Your task to perform on an android device: open a new tab in the chrome app Image 0: 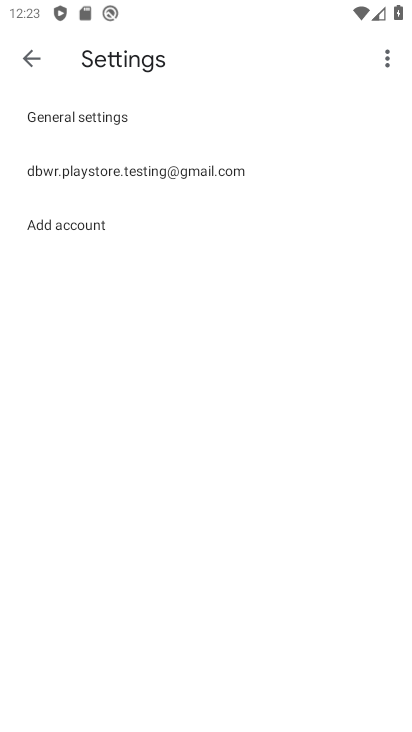
Step 0: drag from (280, 619) to (209, 157)
Your task to perform on an android device: open a new tab in the chrome app Image 1: 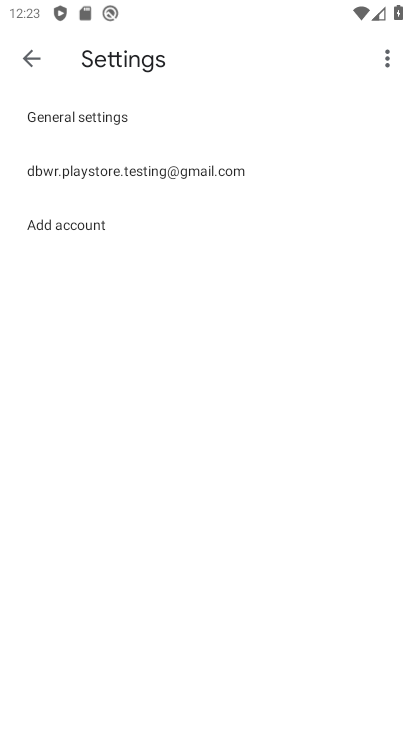
Step 1: press home button
Your task to perform on an android device: open a new tab in the chrome app Image 2: 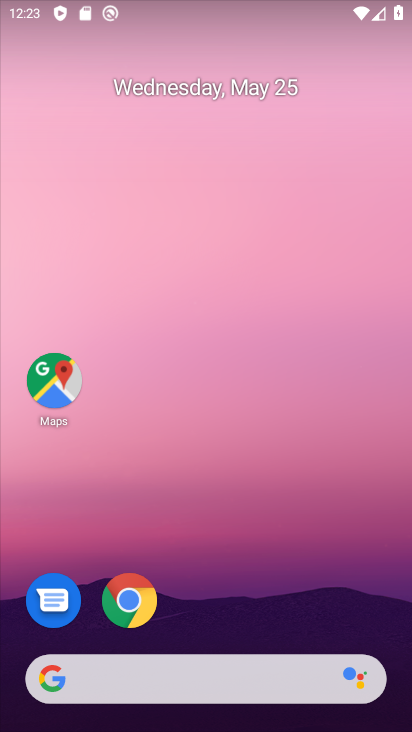
Step 2: click (151, 603)
Your task to perform on an android device: open a new tab in the chrome app Image 3: 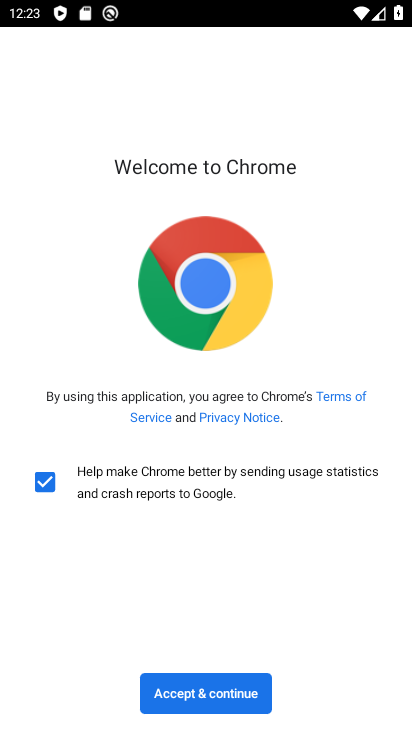
Step 3: click (179, 691)
Your task to perform on an android device: open a new tab in the chrome app Image 4: 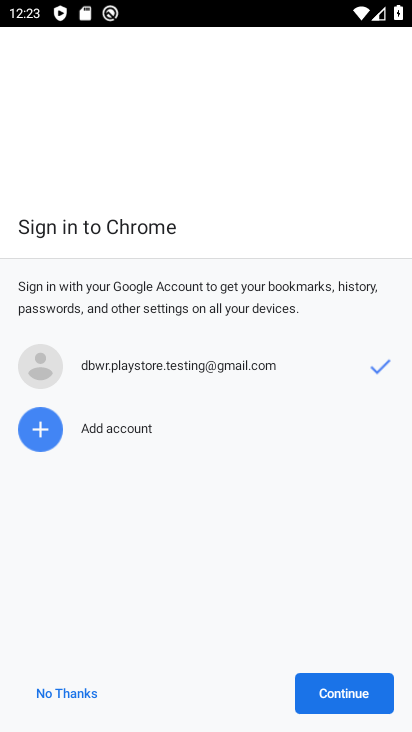
Step 4: click (346, 683)
Your task to perform on an android device: open a new tab in the chrome app Image 5: 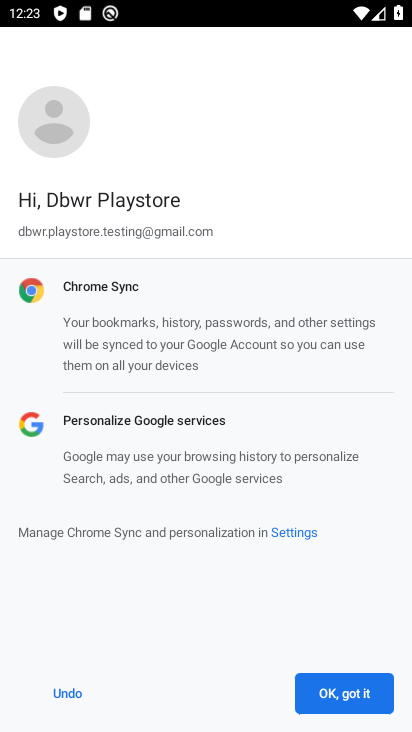
Step 5: click (346, 683)
Your task to perform on an android device: open a new tab in the chrome app Image 6: 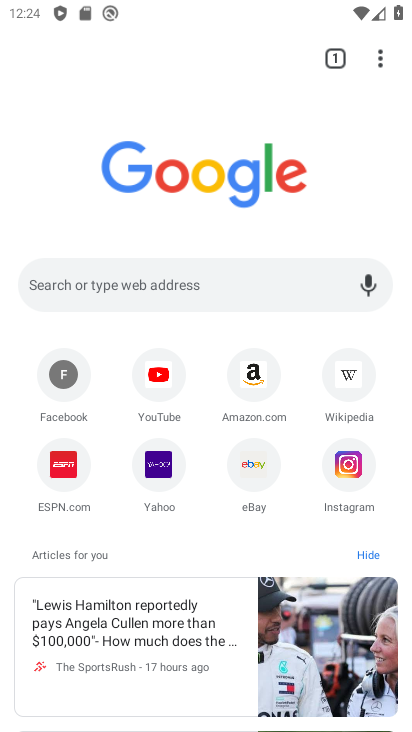
Step 6: click (383, 72)
Your task to perform on an android device: open a new tab in the chrome app Image 7: 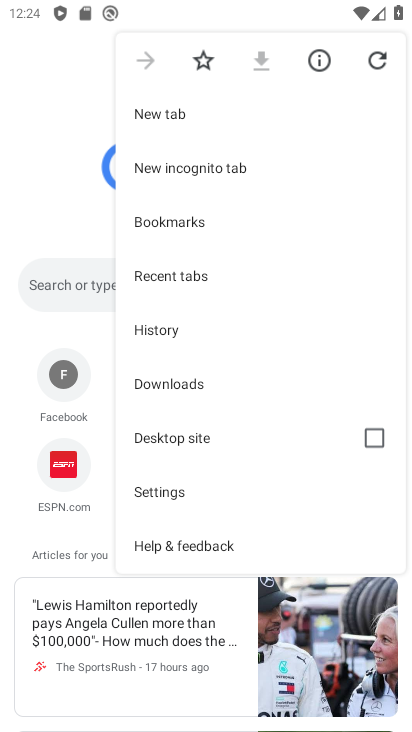
Step 7: click (273, 118)
Your task to perform on an android device: open a new tab in the chrome app Image 8: 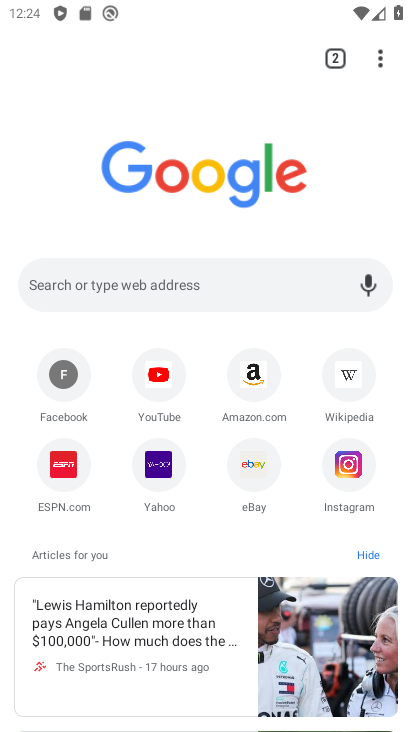
Step 8: task complete